Your task to perform on an android device: see sites visited before in the chrome app Image 0: 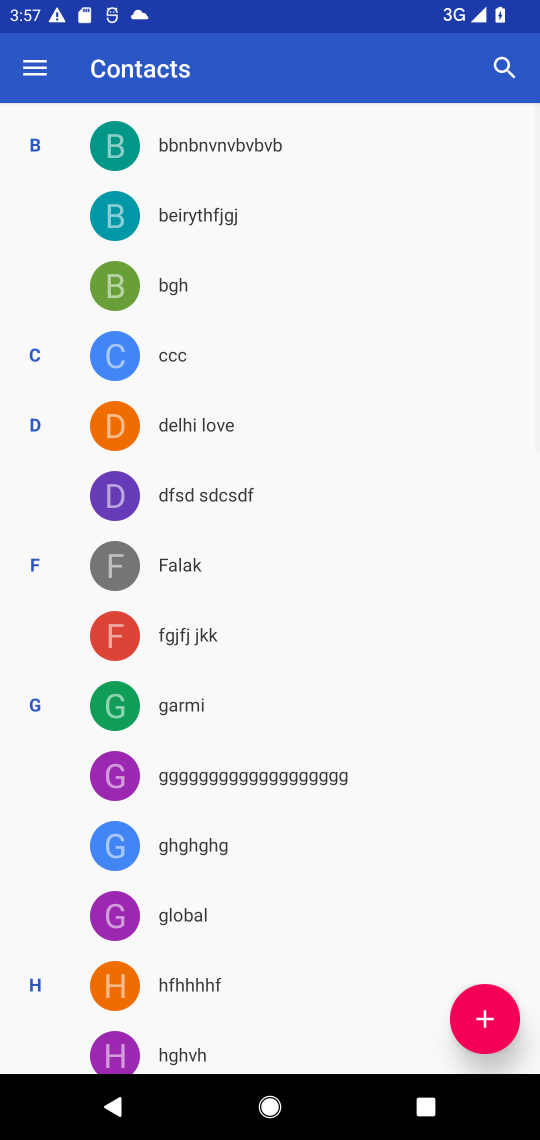
Step 0: press home button
Your task to perform on an android device: see sites visited before in the chrome app Image 1: 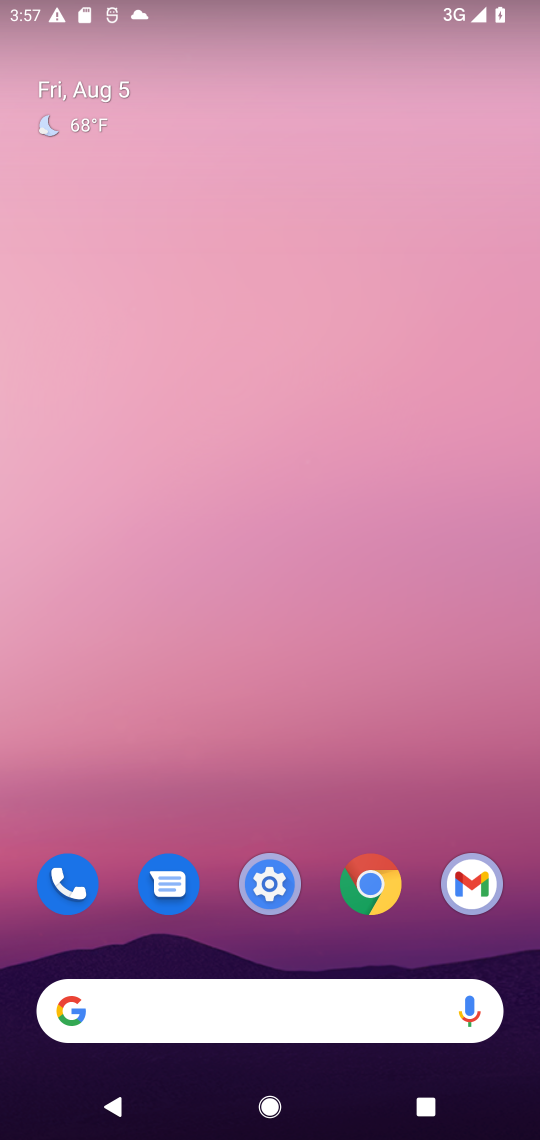
Step 1: drag from (472, 846) to (260, 27)
Your task to perform on an android device: see sites visited before in the chrome app Image 2: 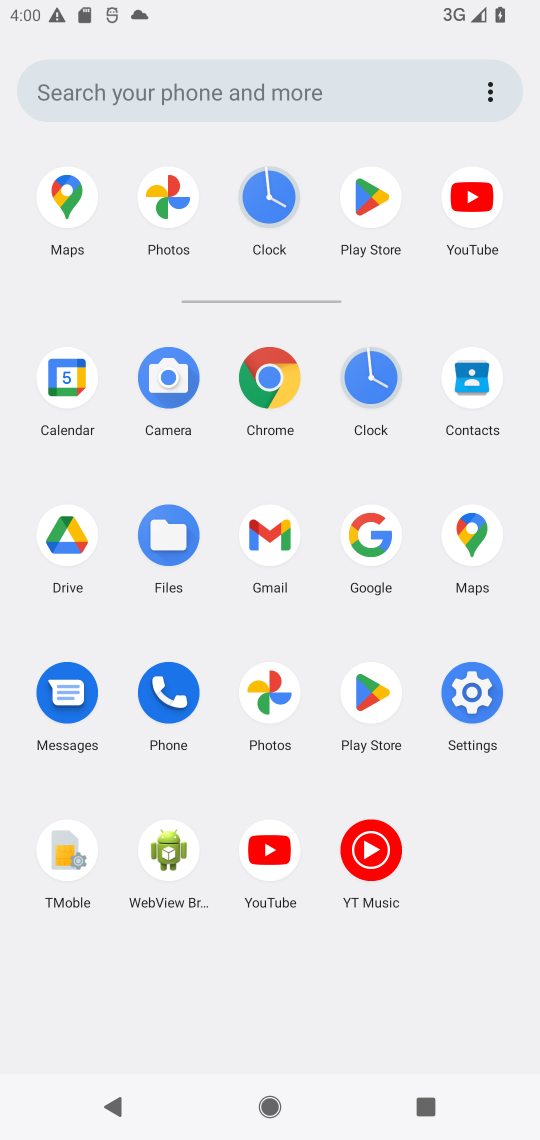
Step 2: click (264, 378)
Your task to perform on an android device: see sites visited before in the chrome app Image 3: 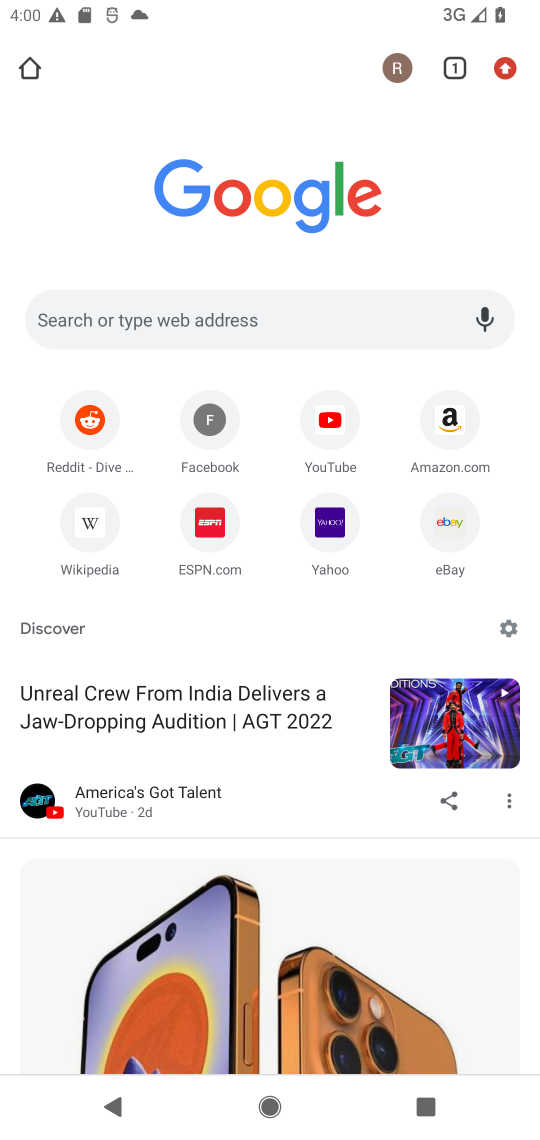
Step 3: task complete